Your task to perform on an android device: uninstall "Google Photos" Image 0: 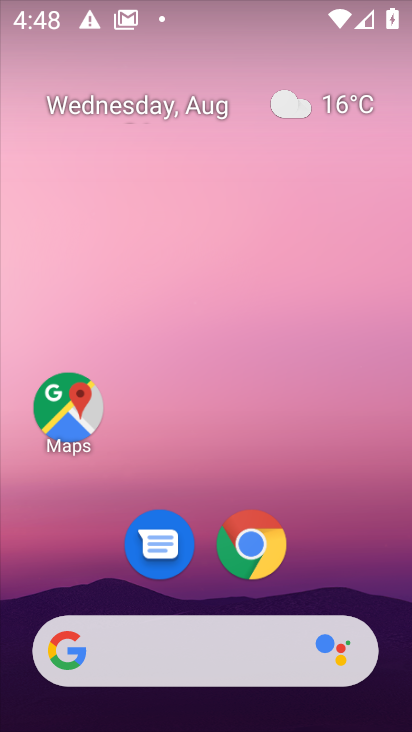
Step 0: drag from (165, 654) to (245, 12)
Your task to perform on an android device: uninstall "Google Photos" Image 1: 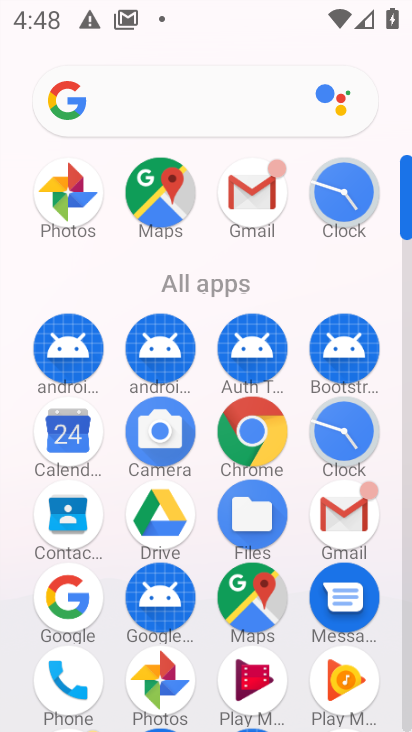
Step 1: press home button
Your task to perform on an android device: uninstall "Google Photos" Image 2: 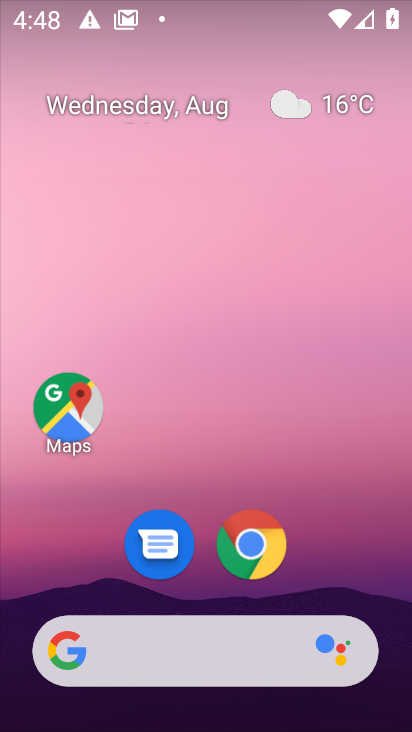
Step 2: drag from (211, 659) to (231, 139)
Your task to perform on an android device: uninstall "Google Photos" Image 3: 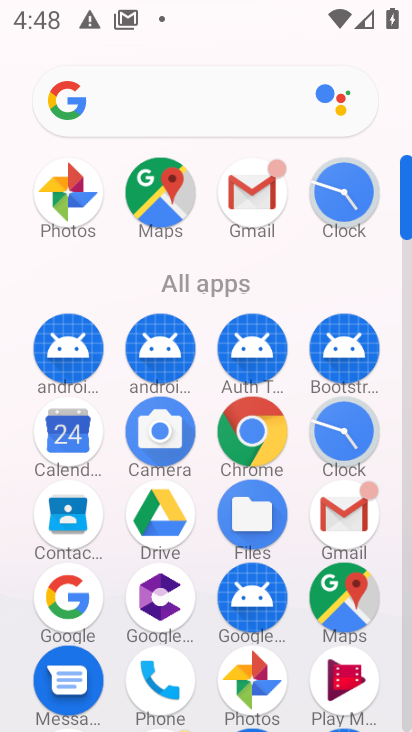
Step 3: drag from (303, 313) to (316, 68)
Your task to perform on an android device: uninstall "Google Photos" Image 4: 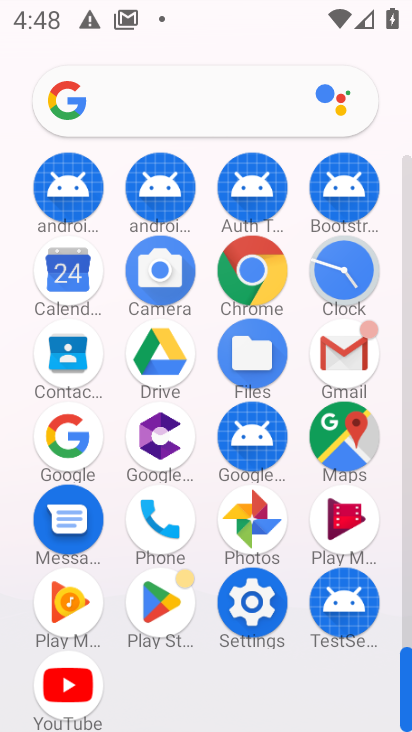
Step 4: click (161, 595)
Your task to perform on an android device: uninstall "Google Photos" Image 5: 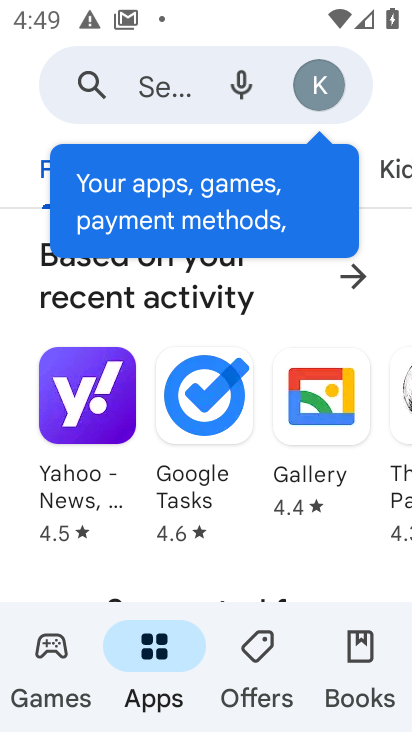
Step 5: click (240, 67)
Your task to perform on an android device: uninstall "Google Photos" Image 6: 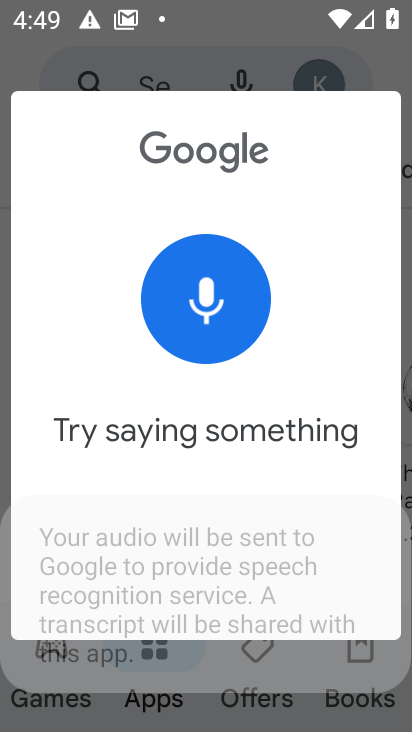
Step 6: click (203, 32)
Your task to perform on an android device: uninstall "Google Photos" Image 7: 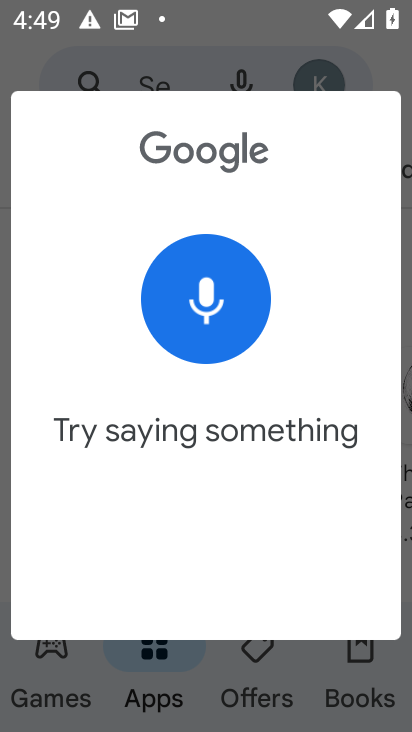
Step 7: press back button
Your task to perform on an android device: uninstall "Google Photos" Image 8: 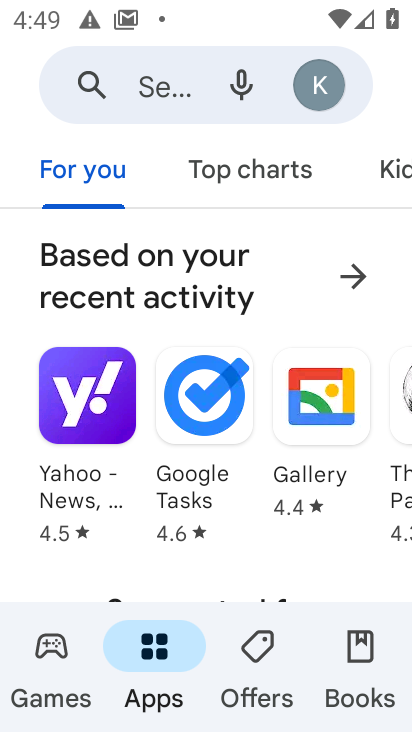
Step 8: click (182, 94)
Your task to perform on an android device: uninstall "Google Photos" Image 9: 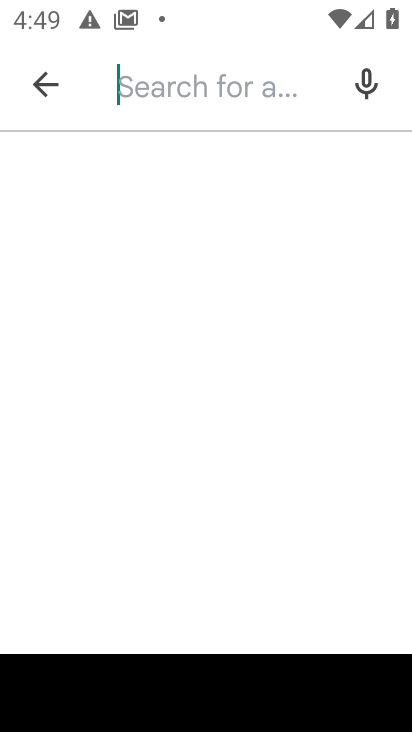
Step 9: type "Google Photos"
Your task to perform on an android device: uninstall "Google Photos" Image 10: 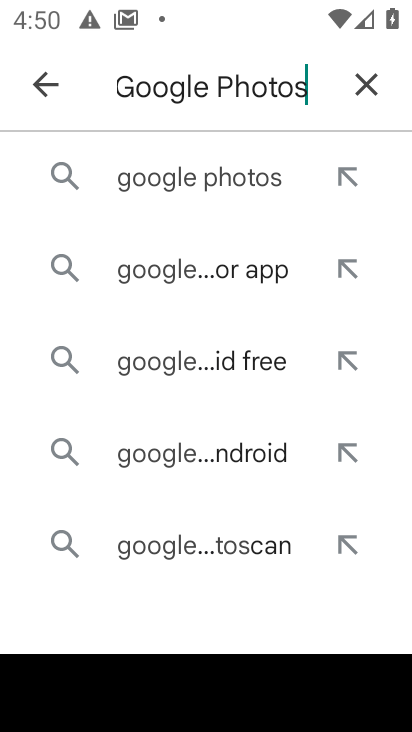
Step 10: click (249, 181)
Your task to perform on an android device: uninstall "Google Photos" Image 11: 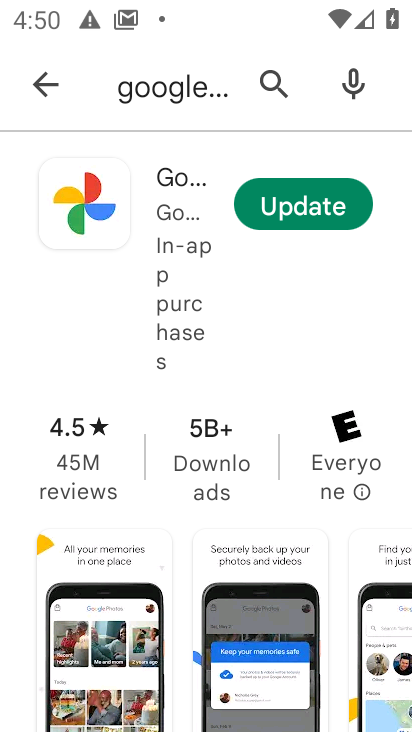
Step 11: click (95, 195)
Your task to perform on an android device: uninstall "Google Photos" Image 12: 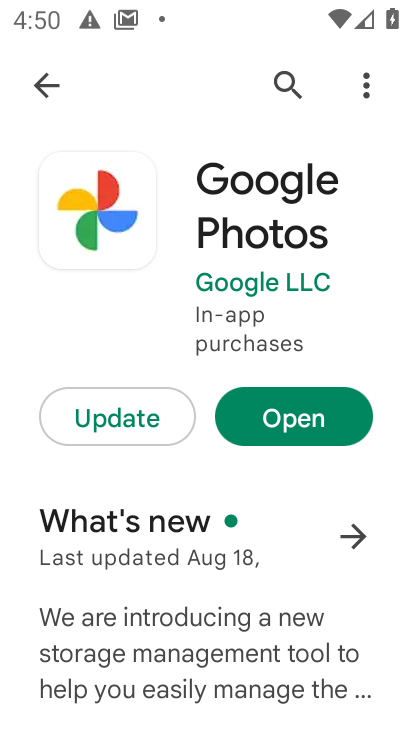
Step 12: click (143, 420)
Your task to perform on an android device: uninstall "Google Photos" Image 13: 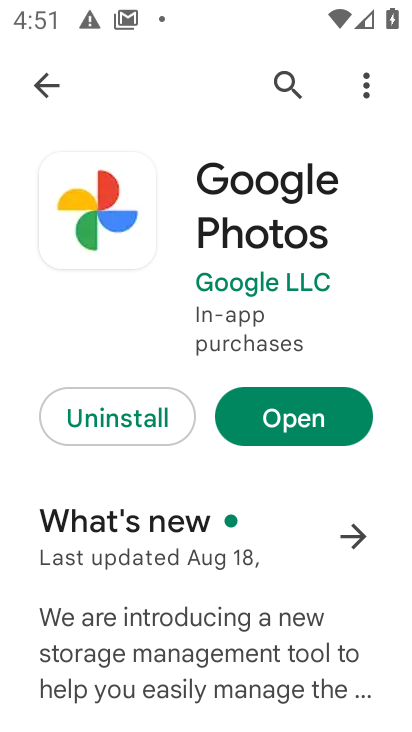
Step 13: click (125, 424)
Your task to perform on an android device: uninstall "Google Photos" Image 14: 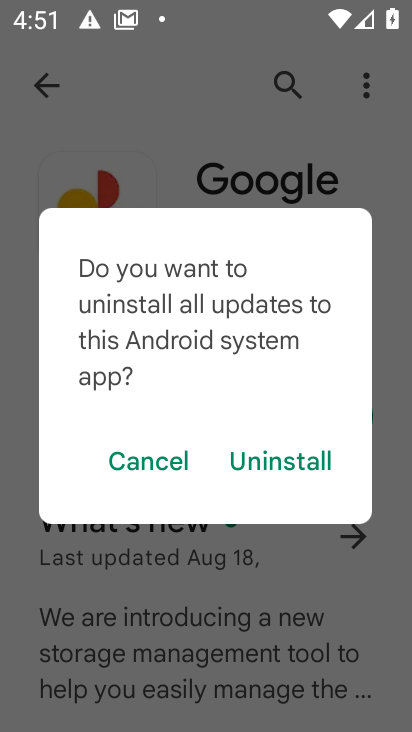
Step 14: click (311, 465)
Your task to perform on an android device: uninstall "Google Photos" Image 15: 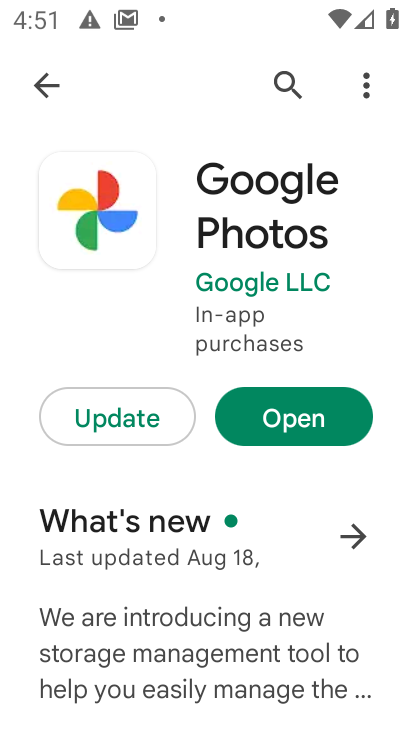
Step 15: task complete